Your task to perform on an android device: Open Chrome and go to the settings page Image 0: 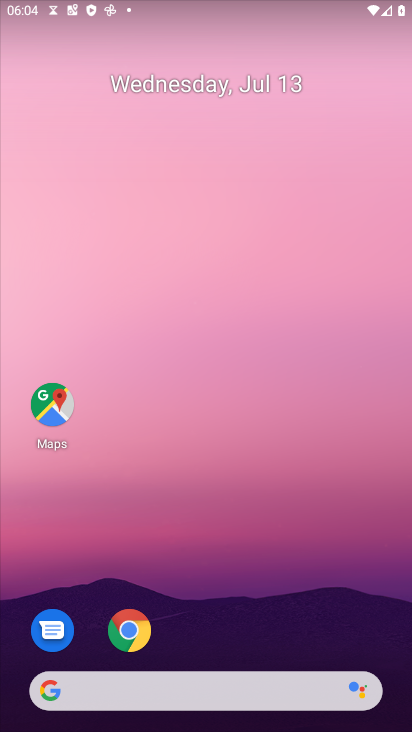
Step 0: drag from (354, 704) to (362, 163)
Your task to perform on an android device: Open Chrome and go to the settings page Image 1: 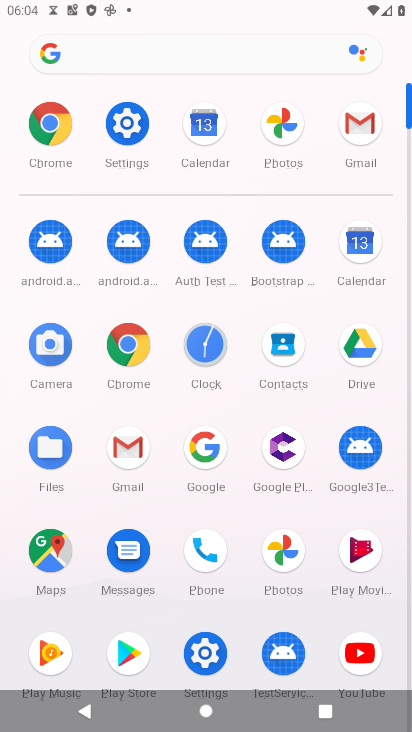
Step 1: click (127, 352)
Your task to perform on an android device: Open Chrome and go to the settings page Image 2: 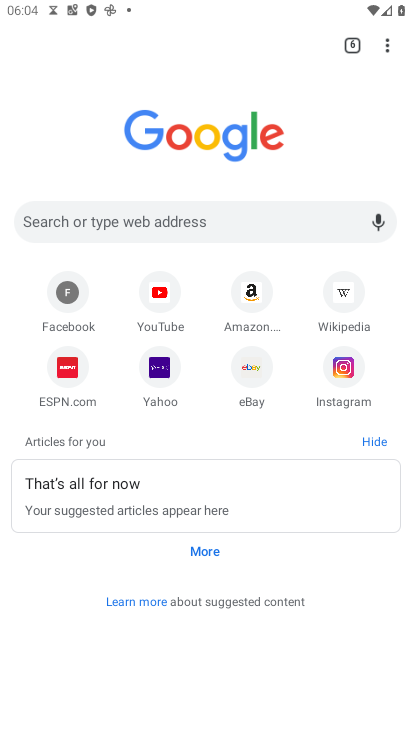
Step 2: task complete